Your task to perform on an android device: open sync settings in chrome Image 0: 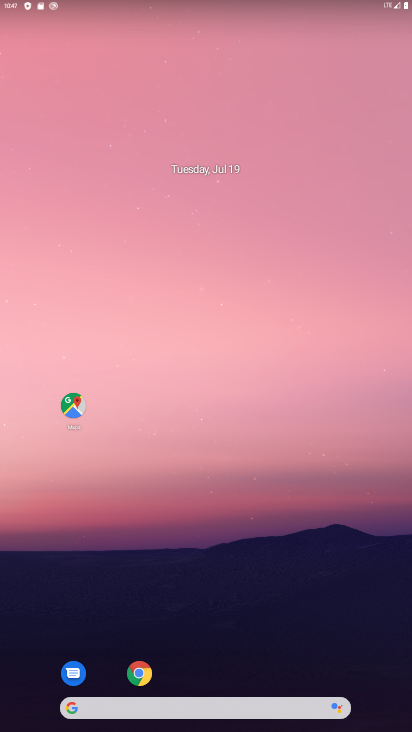
Step 0: click (138, 673)
Your task to perform on an android device: open sync settings in chrome Image 1: 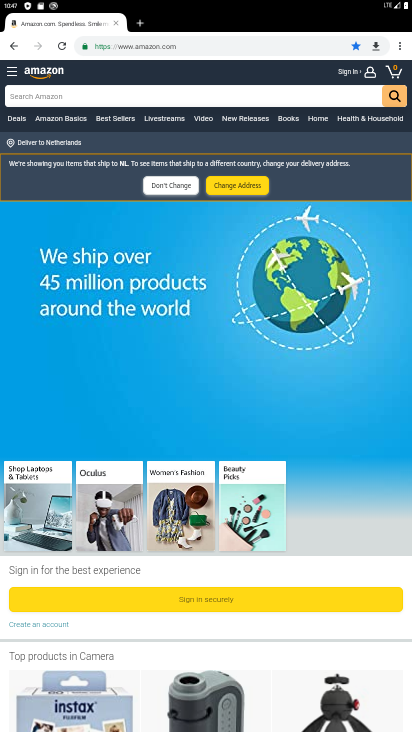
Step 1: click (397, 46)
Your task to perform on an android device: open sync settings in chrome Image 2: 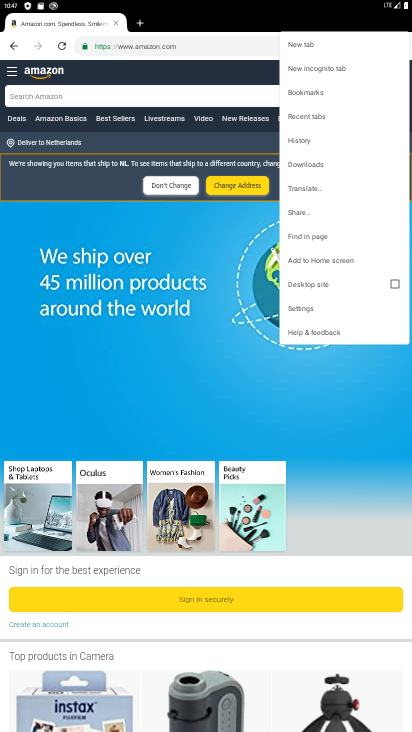
Step 2: click (297, 304)
Your task to perform on an android device: open sync settings in chrome Image 3: 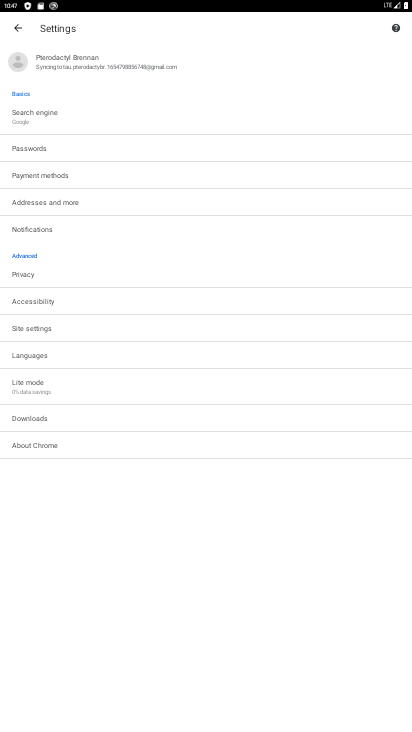
Step 3: click (32, 328)
Your task to perform on an android device: open sync settings in chrome Image 4: 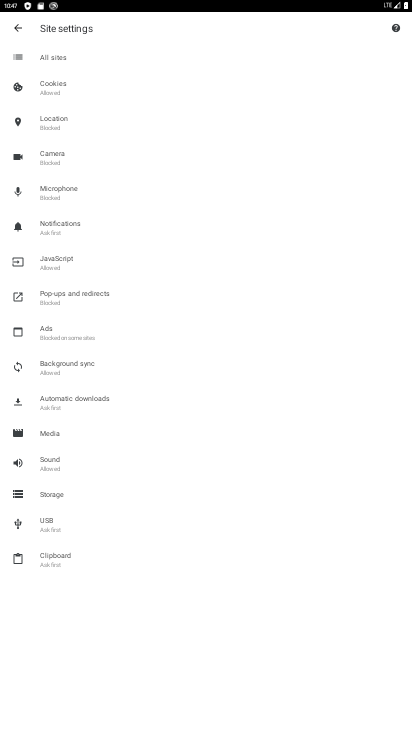
Step 4: click (76, 361)
Your task to perform on an android device: open sync settings in chrome Image 5: 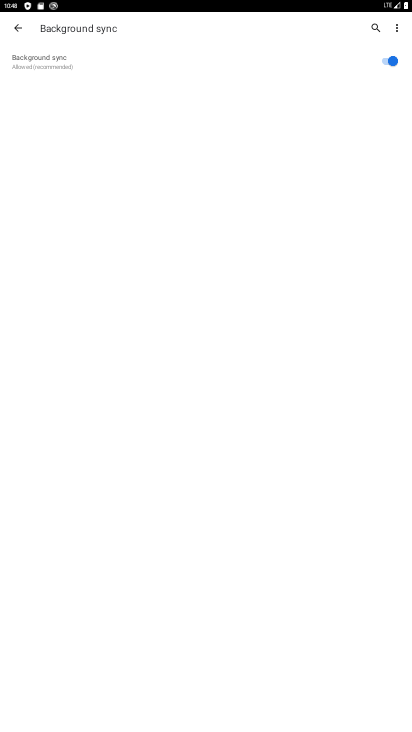
Step 5: task complete